Your task to perform on an android device: Open Yahoo.com Image 0: 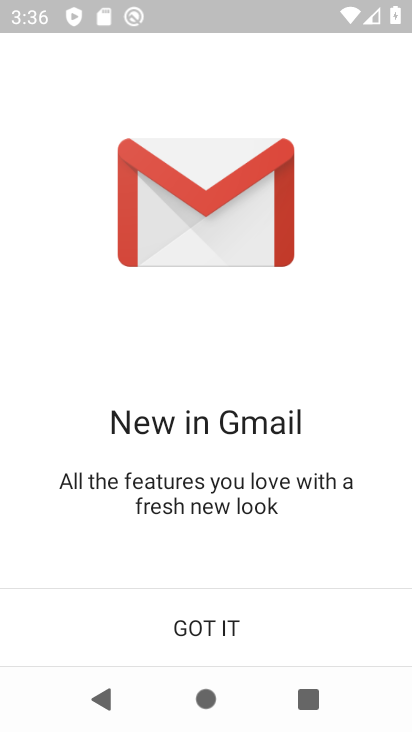
Step 0: click (176, 643)
Your task to perform on an android device: Open Yahoo.com Image 1: 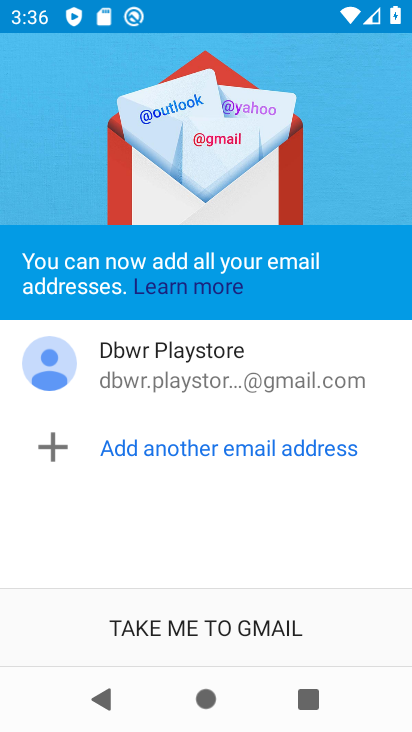
Step 1: click (176, 643)
Your task to perform on an android device: Open Yahoo.com Image 2: 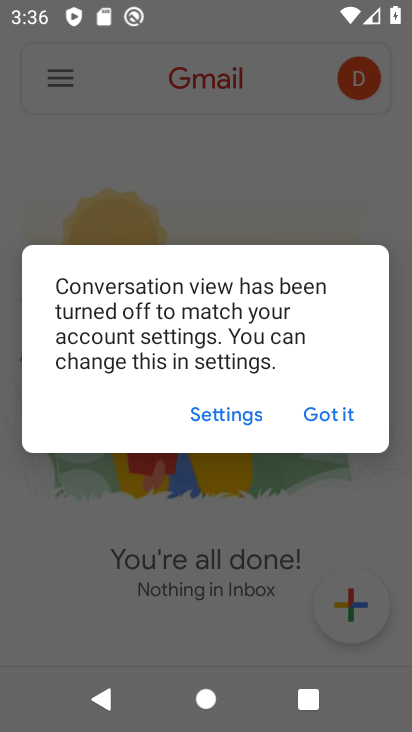
Step 2: click (339, 395)
Your task to perform on an android device: Open Yahoo.com Image 3: 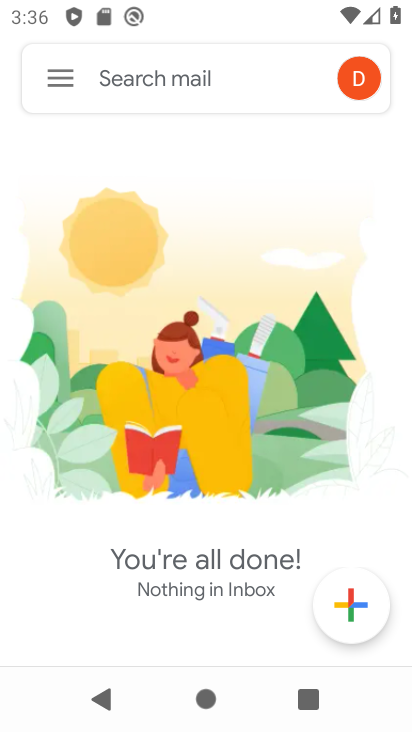
Step 3: click (71, 74)
Your task to perform on an android device: Open Yahoo.com Image 4: 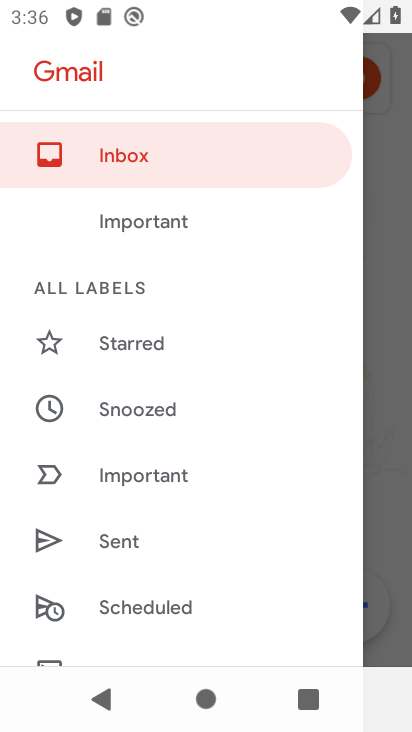
Step 4: press home button
Your task to perform on an android device: Open Yahoo.com Image 5: 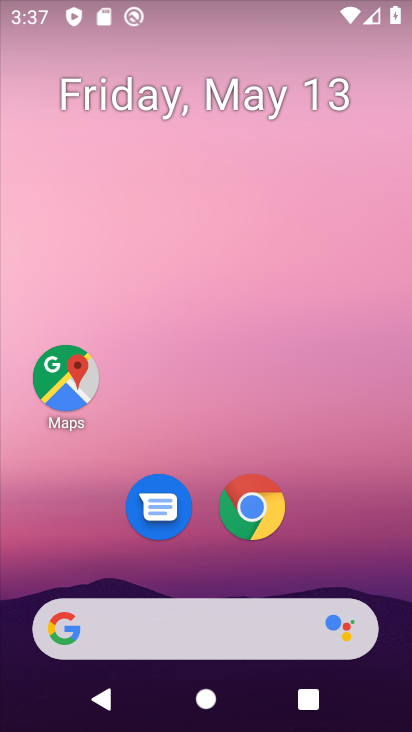
Step 5: click (236, 507)
Your task to perform on an android device: Open Yahoo.com Image 6: 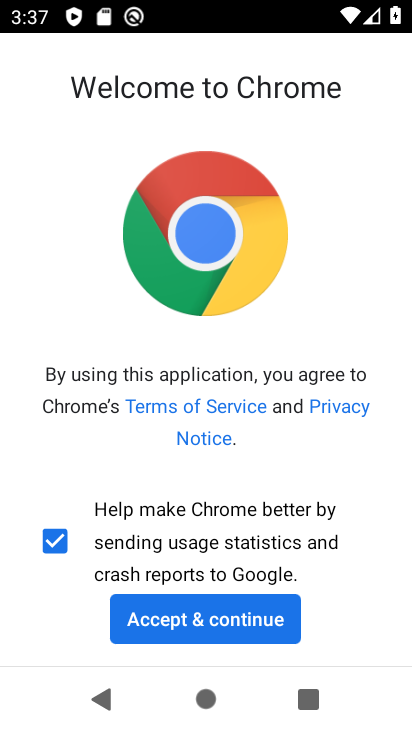
Step 6: click (209, 628)
Your task to perform on an android device: Open Yahoo.com Image 7: 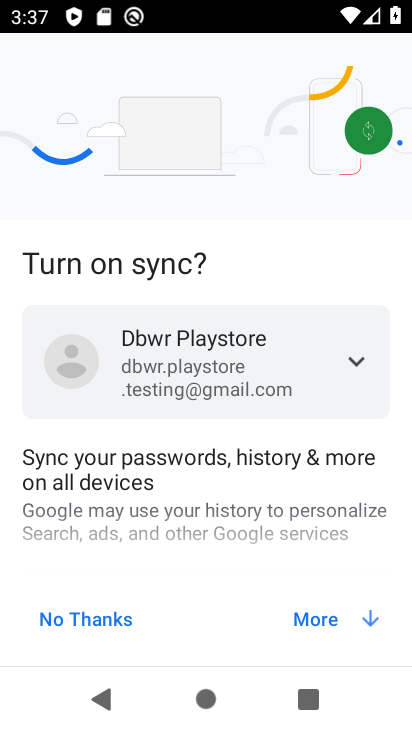
Step 7: click (318, 603)
Your task to perform on an android device: Open Yahoo.com Image 8: 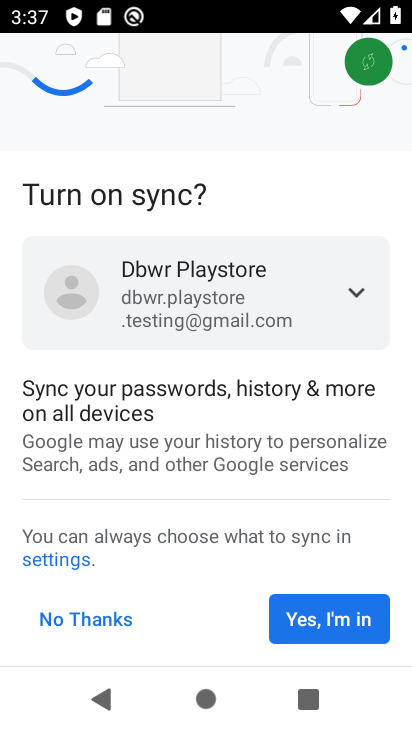
Step 8: click (333, 622)
Your task to perform on an android device: Open Yahoo.com Image 9: 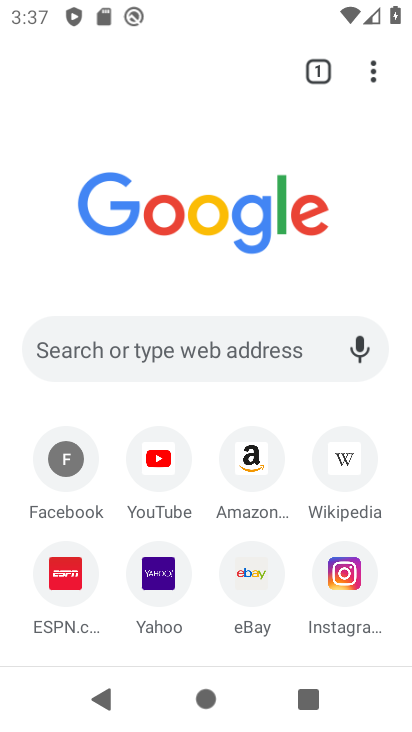
Step 9: click (162, 579)
Your task to perform on an android device: Open Yahoo.com Image 10: 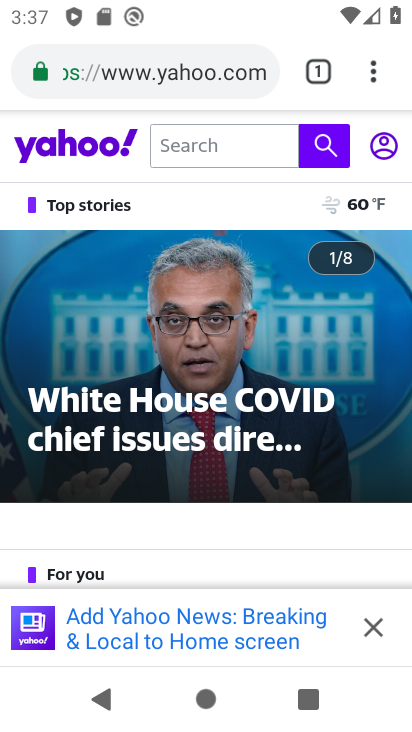
Step 10: task complete